Your task to perform on an android device: Go to internet settings Image 0: 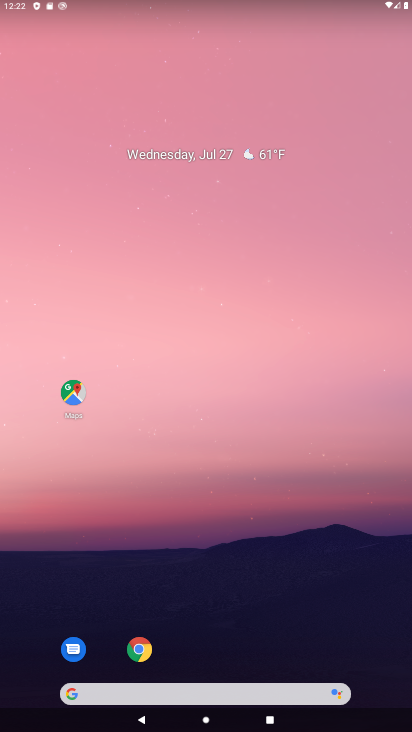
Step 0: press home button
Your task to perform on an android device: Go to internet settings Image 1: 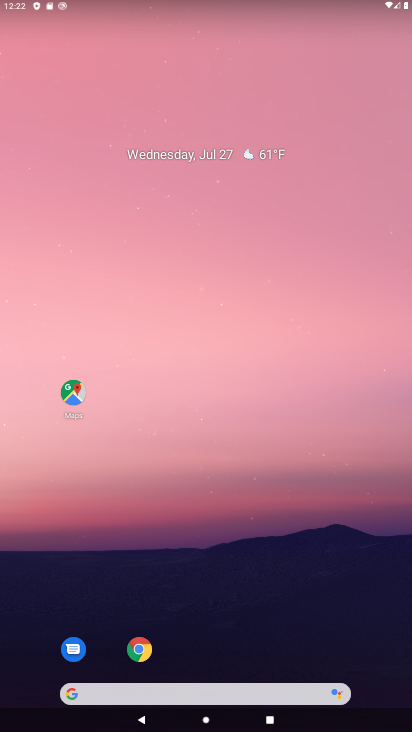
Step 1: drag from (239, 645) to (243, 85)
Your task to perform on an android device: Go to internet settings Image 2: 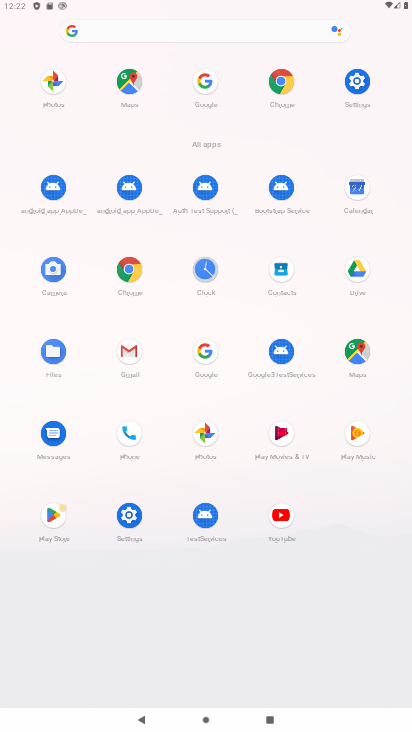
Step 2: click (352, 88)
Your task to perform on an android device: Go to internet settings Image 3: 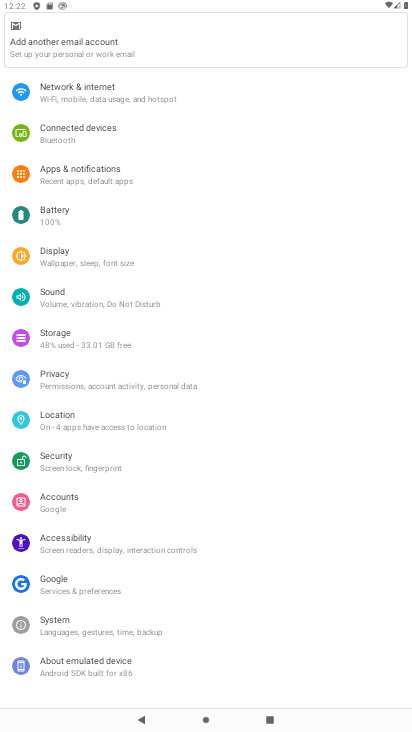
Step 3: click (172, 102)
Your task to perform on an android device: Go to internet settings Image 4: 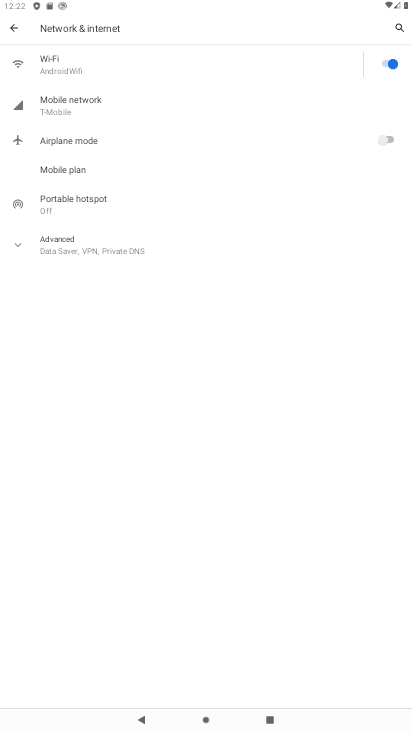
Step 4: task complete